Your task to perform on an android device: Show me popular videos on Youtube Image 0: 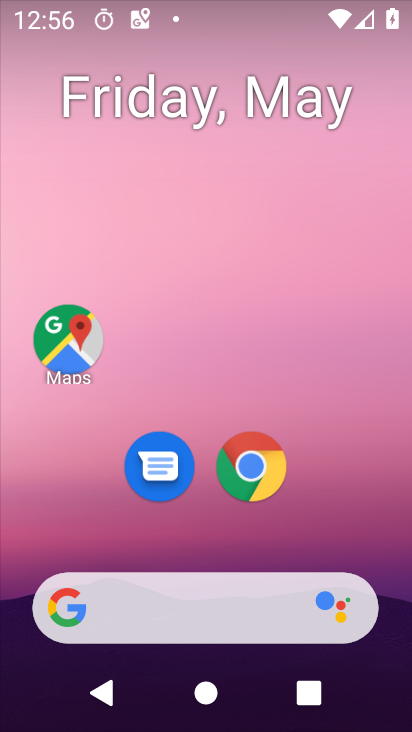
Step 0: drag from (393, 614) to (307, 104)
Your task to perform on an android device: Show me popular videos on Youtube Image 1: 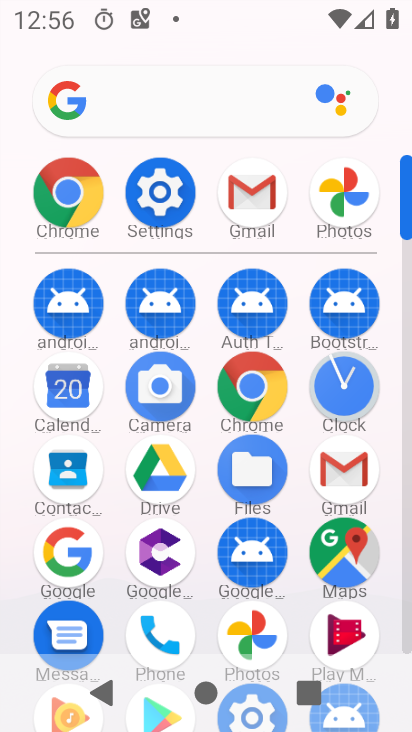
Step 1: drag from (301, 597) to (274, 217)
Your task to perform on an android device: Show me popular videos on Youtube Image 2: 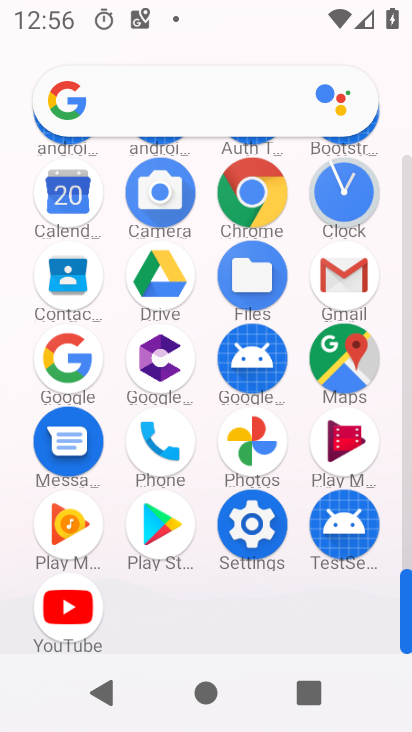
Step 2: click (73, 615)
Your task to perform on an android device: Show me popular videos on Youtube Image 3: 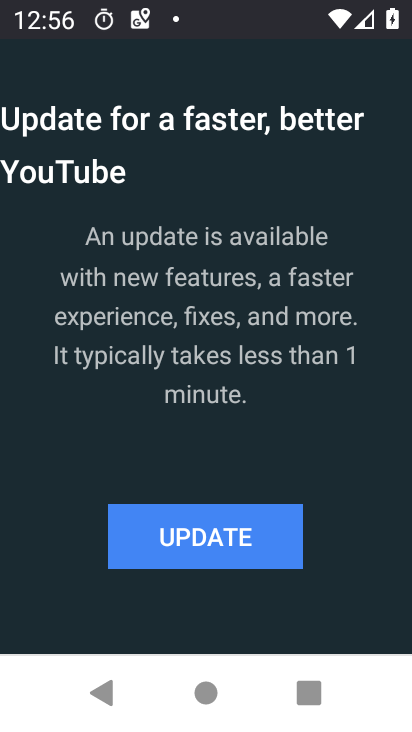
Step 3: click (254, 523)
Your task to perform on an android device: Show me popular videos on Youtube Image 4: 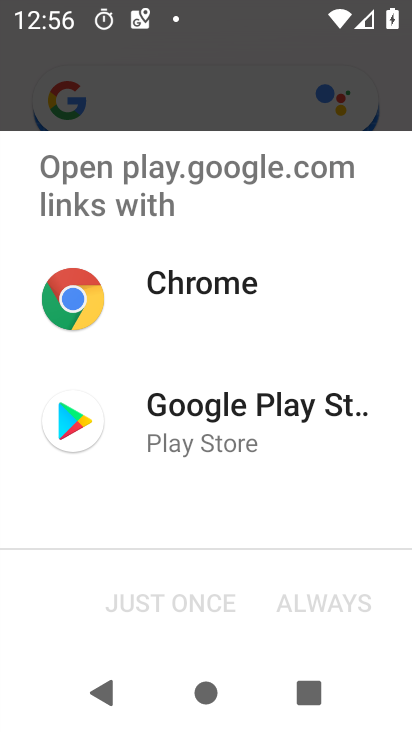
Step 4: click (183, 456)
Your task to perform on an android device: Show me popular videos on Youtube Image 5: 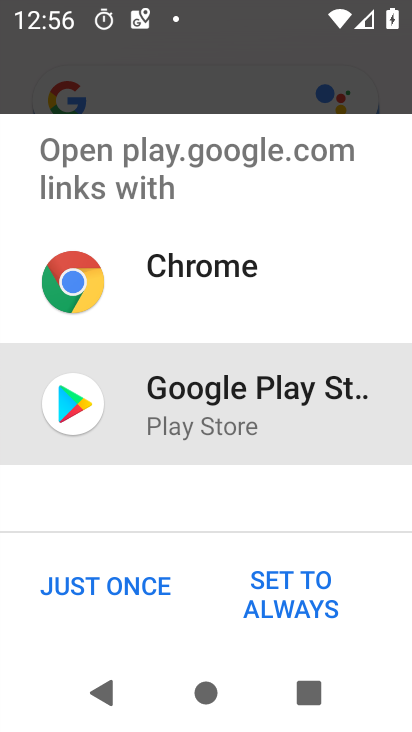
Step 5: click (76, 600)
Your task to perform on an android device: Show me popular videos on Youtube Image 6: 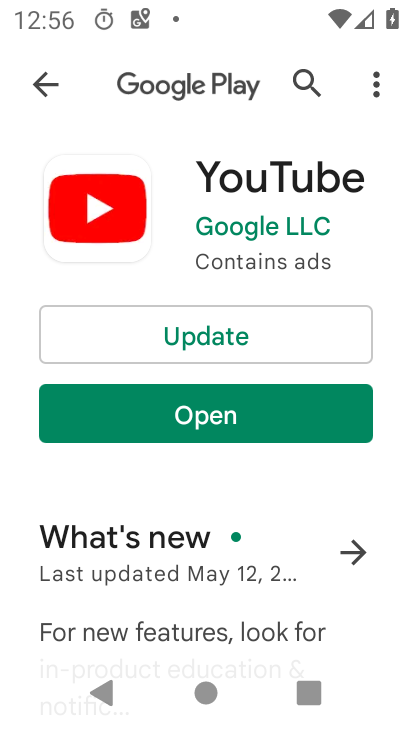
Step 6: click (308, 307)
Your task to perform on an android device: Show me popular videos on Youtube Image 7: 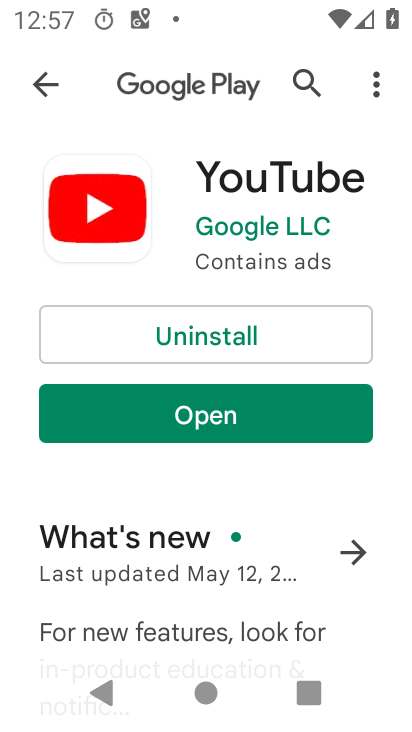
Step 7: click (181, 420)
Your task to perform on an android device: Show me popular videos on Youtube Image 8: 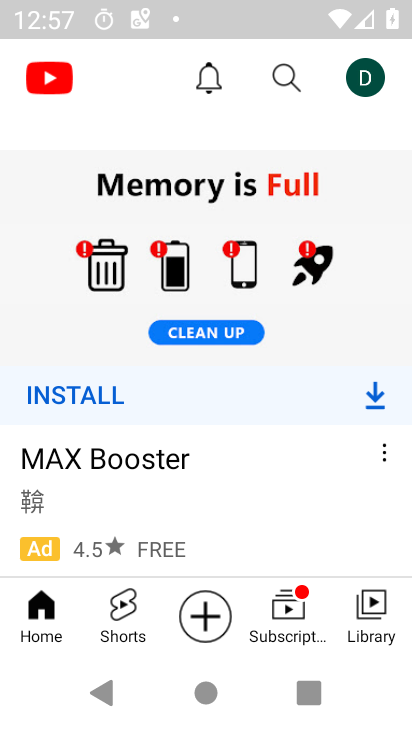
Step 8: task complete